Your task to perform on an android device: choose inbox layout in the gmail app Image 0: 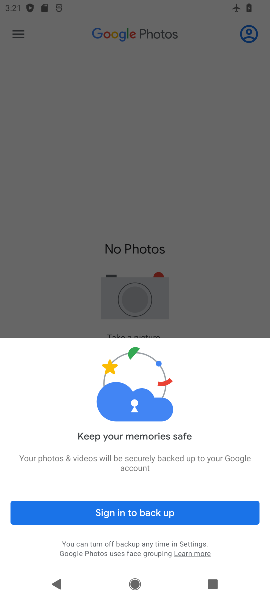
Step 0: press home button
Your task to perform on an android device: choose inbox layout in the gmail app Image 1: 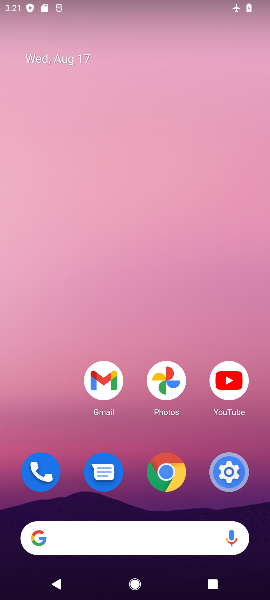
Step 1: click (117, 384)
Your task to perform on an android device: choose inbox layout in the gmail app Image 2: 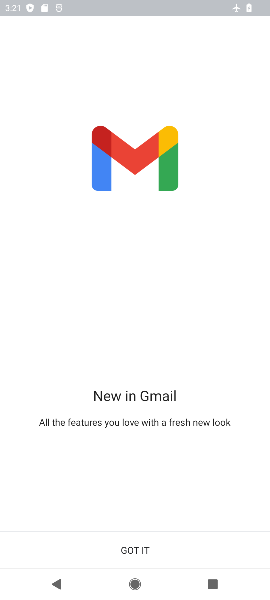
Step 2: click (140, 540)
Your task to perform on an android device: choose inbox layout in the gmail app Image 3: 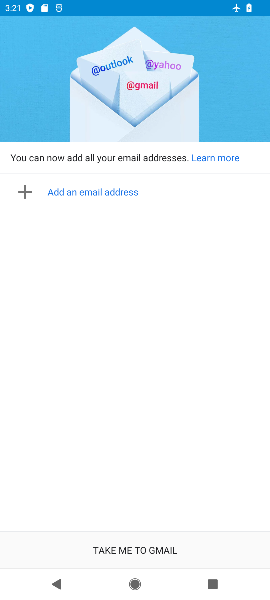
Step 3: click (140, 531)
Your task to perform on an android device: choose inbox layout in the gmail app Image 4: 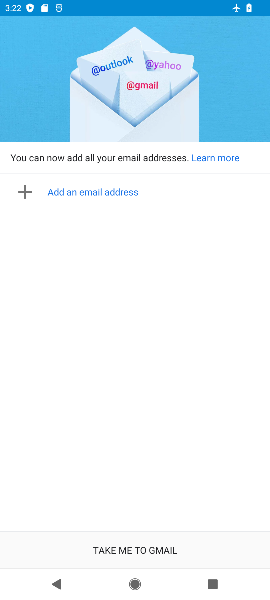
Step 4: task complete